Your task to perform on an android device: turn on airplane mode Image 0: 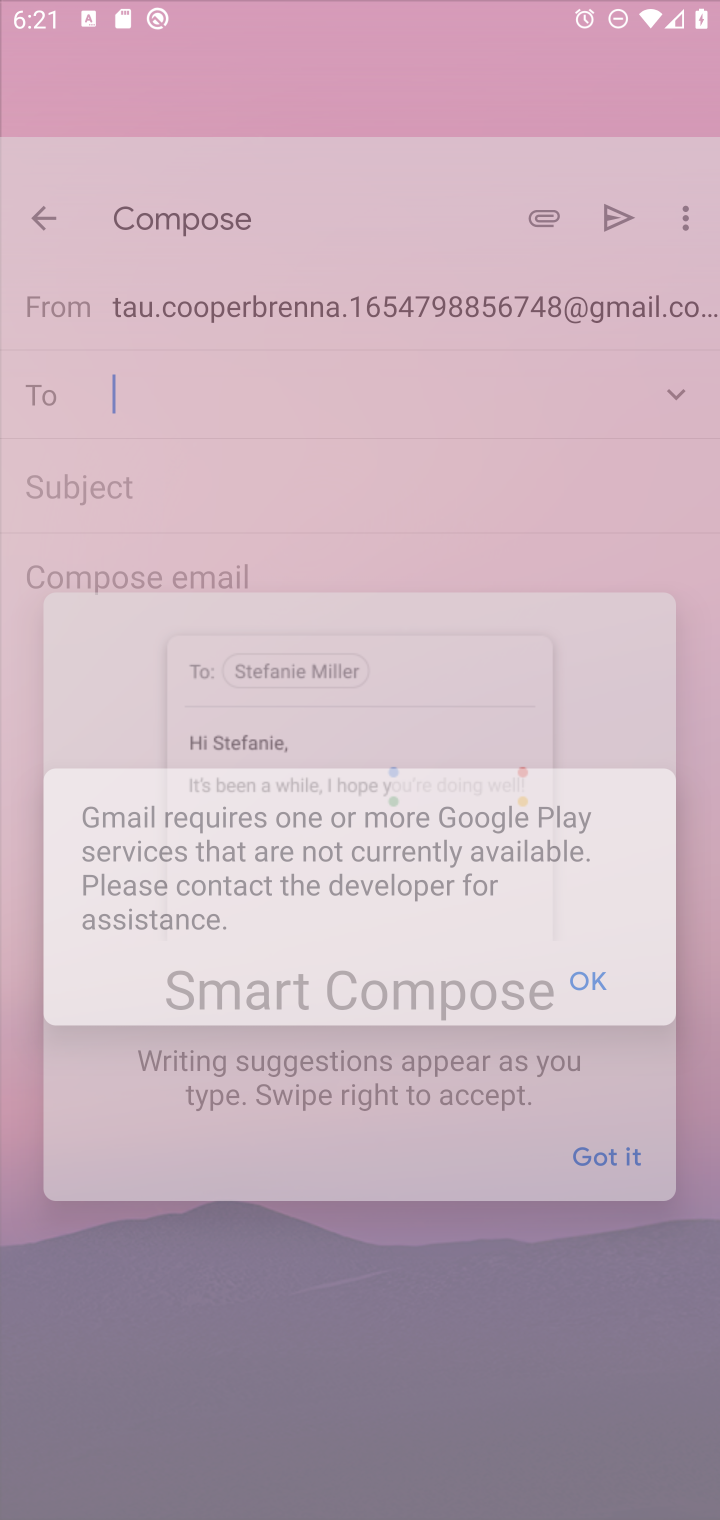
Step 0: press home button
Your task to perform on an android device: turn on airplane mode Image 1: 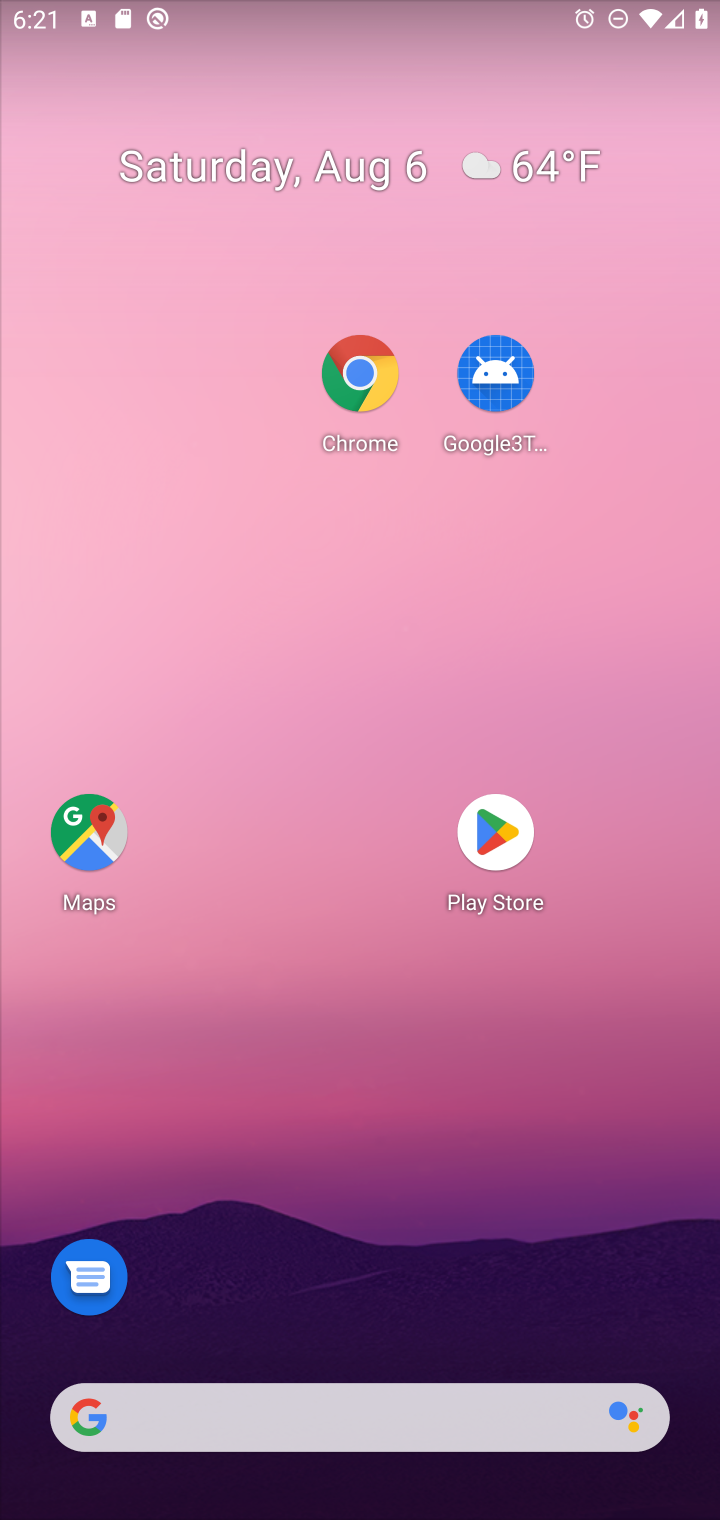
Step 1: drag from (386, 1337) to (378, 204)
Your task to perform on an android device: turn on airplane mode Image 2: 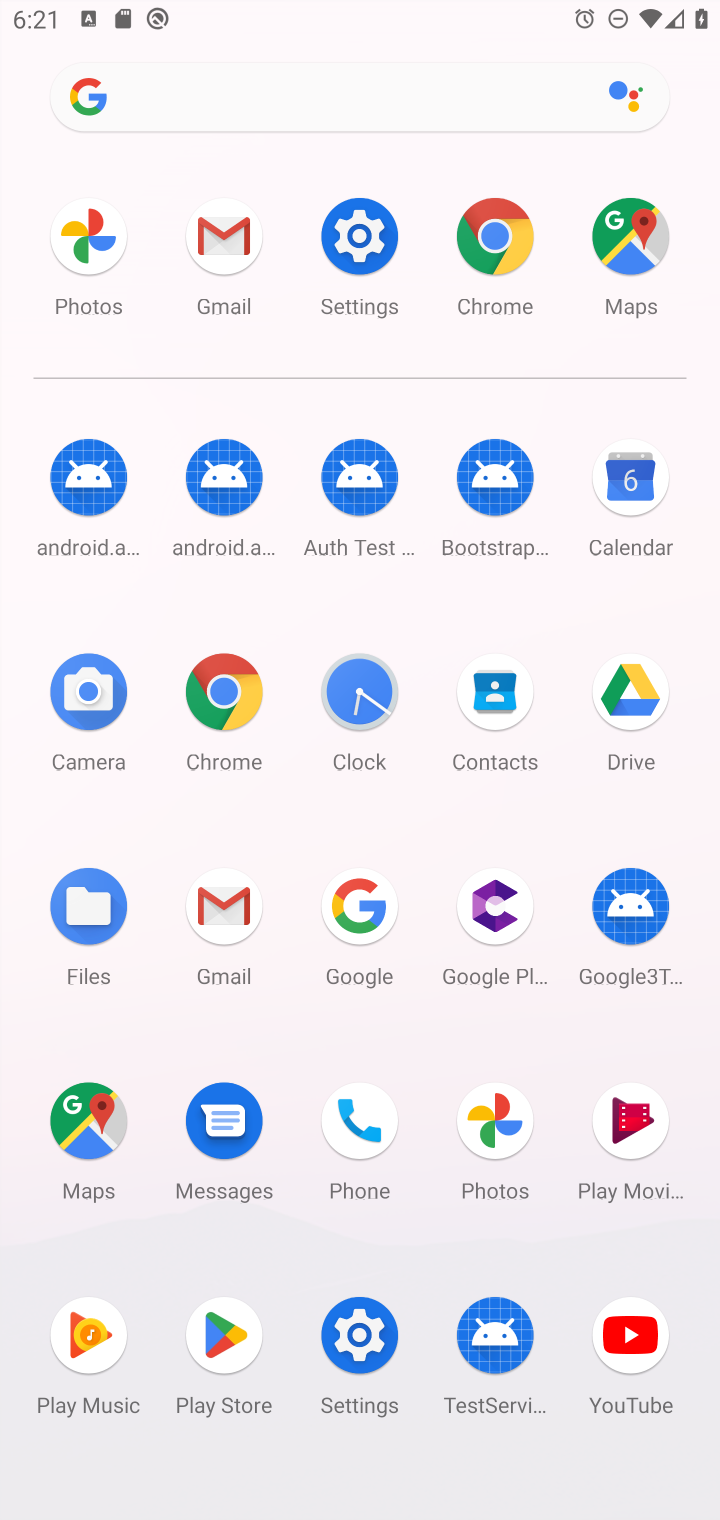
Step 2: click (349, 226)
Your task to perform on an android device: turn on airplane mode Image 3: 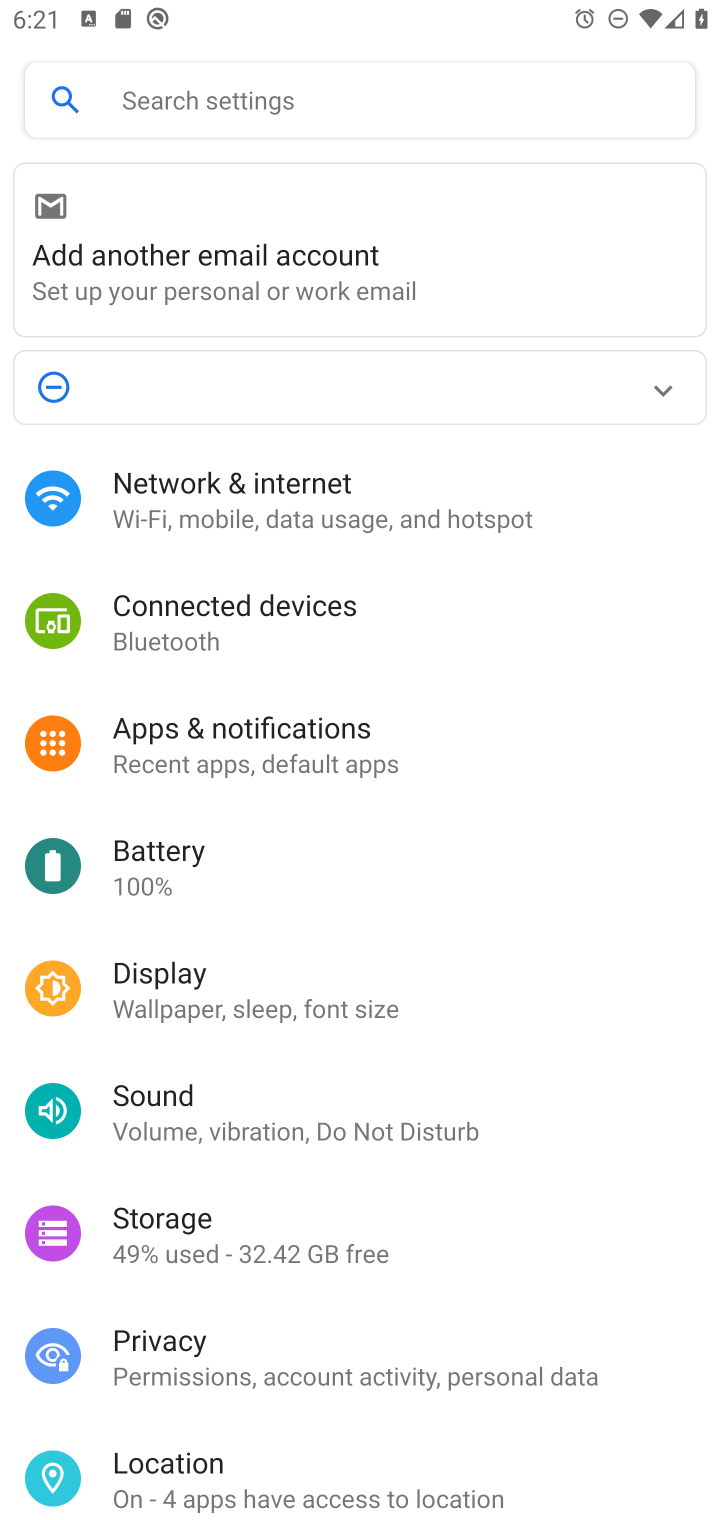
Step 3: click (306, 492)
Your task to perform on an android device: turn on airplane mode Image 4: 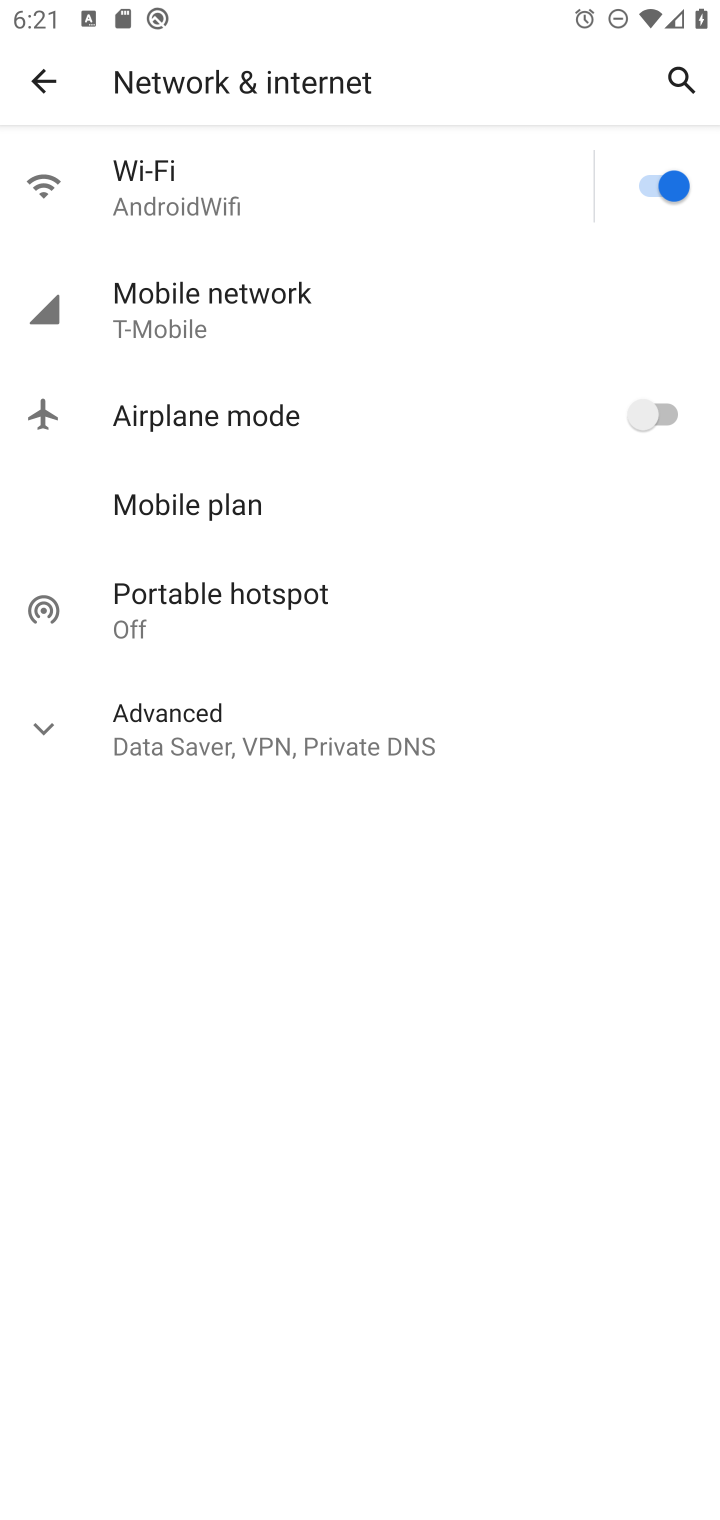
Step 4: click (669, 405)
Your task to perform on an android device: turn on airplane mode Image 5: 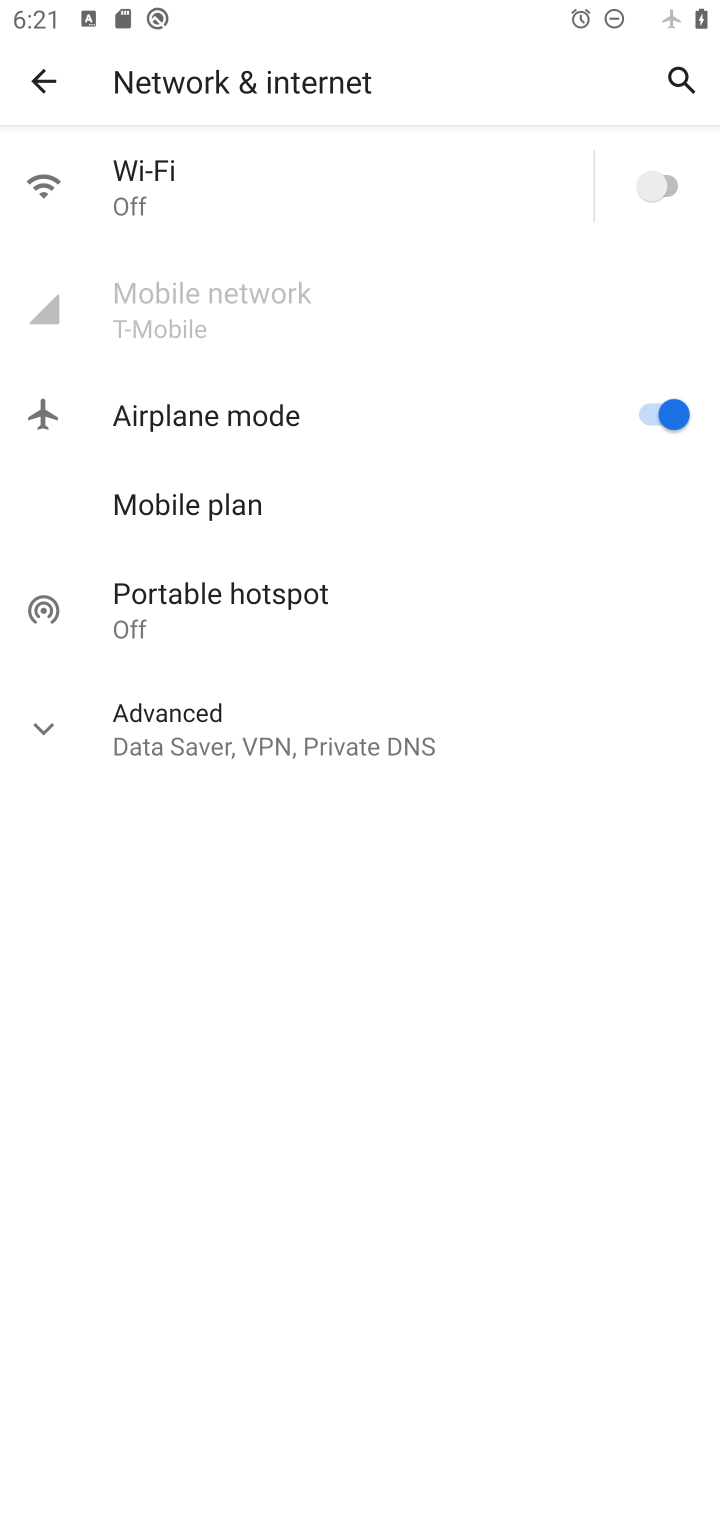
Step 5: task complete